Your task to perform on an android device: turn off notifications in google photos Image 0: 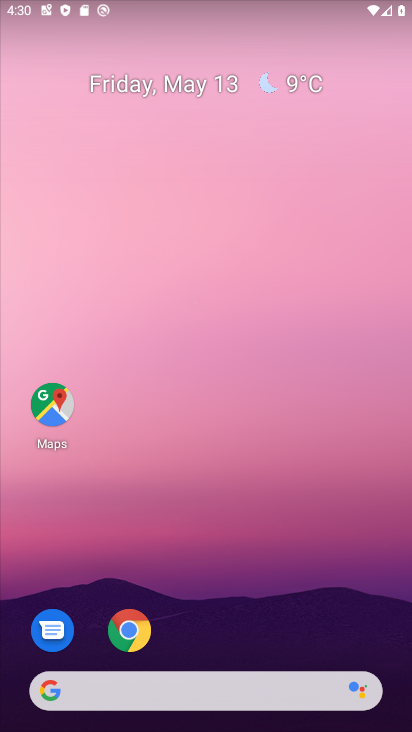
Step 0: drag from (228, 458) to (211, 34)
Your task to perform on an android device: turn off notifications in google photos Image 1: 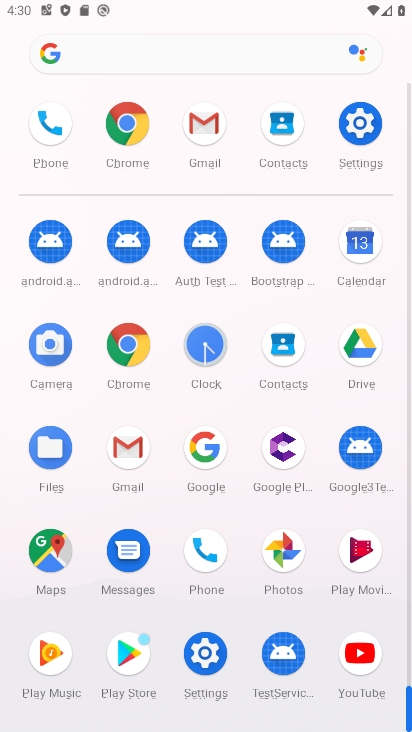
Step 1: drag from (8, 565) to (37, 248)
Your task to perform on an android device: turn off notifications in google photos Image 2: 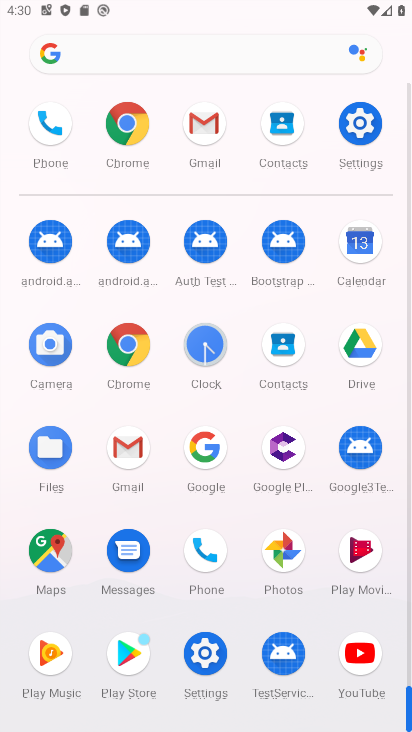
Step 2: click (201, 648)
Your task to perform on an android device: turn off notifications in google photos Image 3: 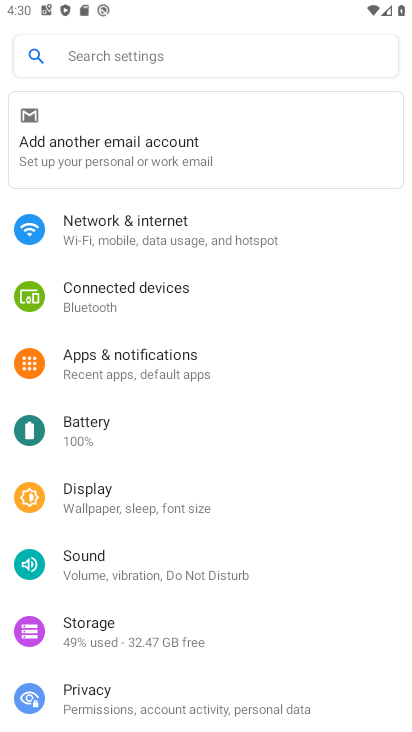
Step 3: drag from (311, 536) to (352, 167)
Your task to perform on an android device: turn off notifications in google photos Image 4: 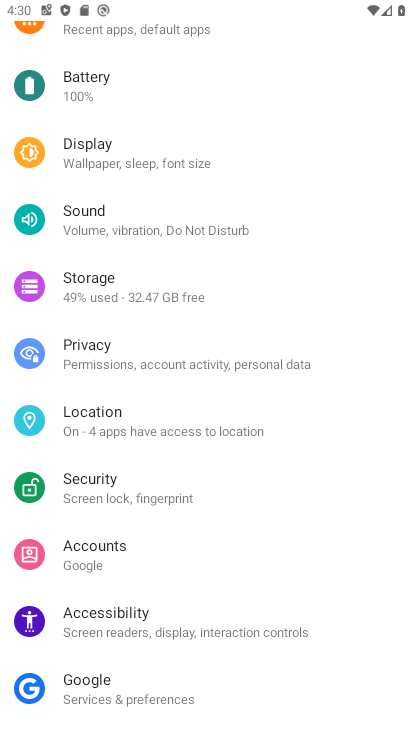
Step 4: drag from (328, 110) to (308, 456)
Your task to perform on an android device: turn off notifications in google photos Image 5: 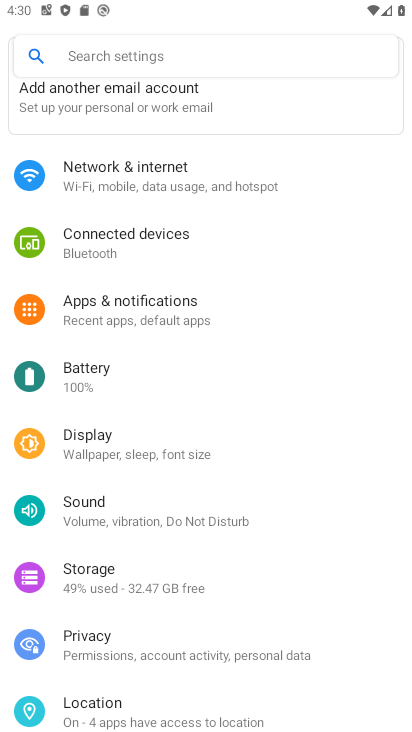
Step 5: press back button
Your task to perform on an android device: turn off notifications in google photos Image 6: 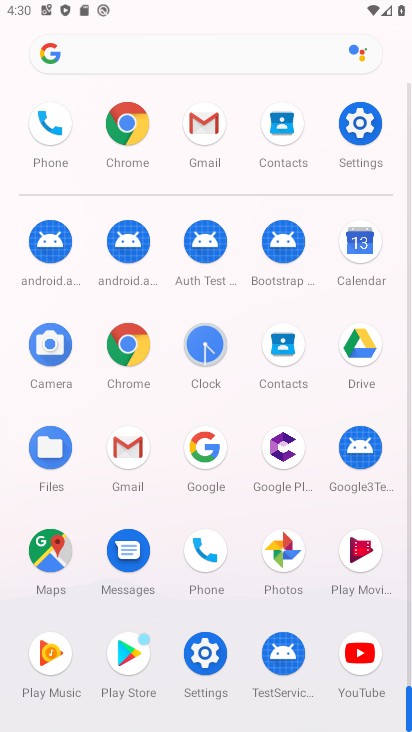
Step 6: click (281, 545)
Your task to perform on an android device: turn off notifications in google photos Image 7: 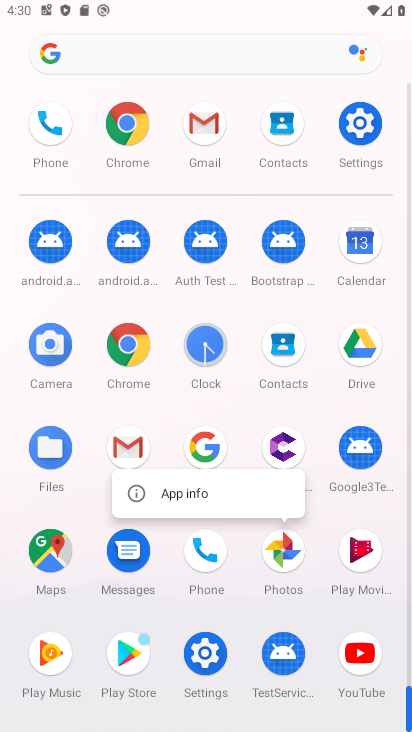
Step 7: click (281, 545)
Your task to perform on an android device: turn off notifications in google photos Image 8: 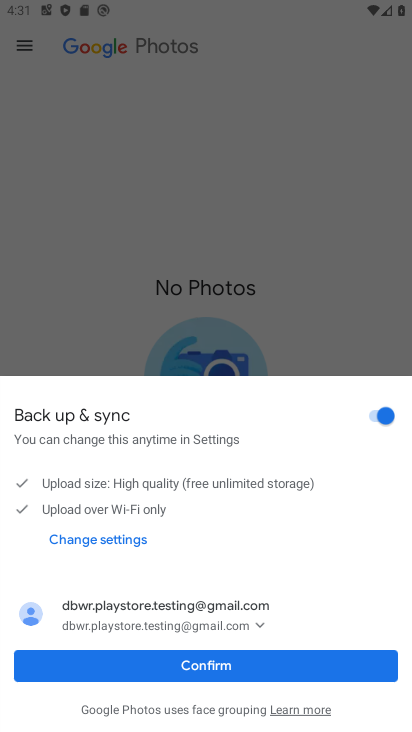
Step 8: press back button
Your task to perform on an android device: turn off notifications in google photos Image 9: 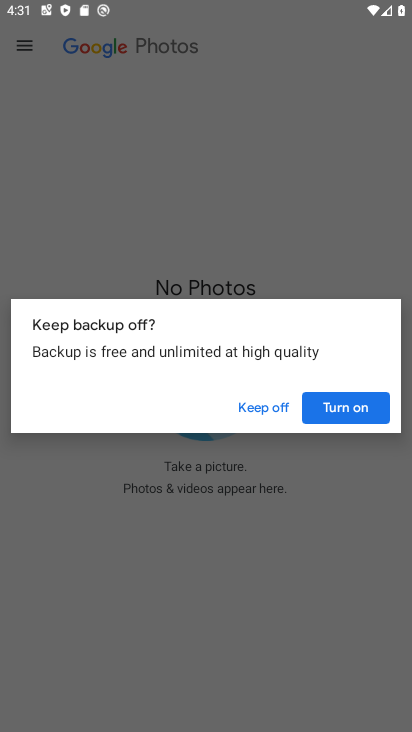
Step 9: press back button
Your task to perform on an android device: turn off notifications in google photos Image 10: 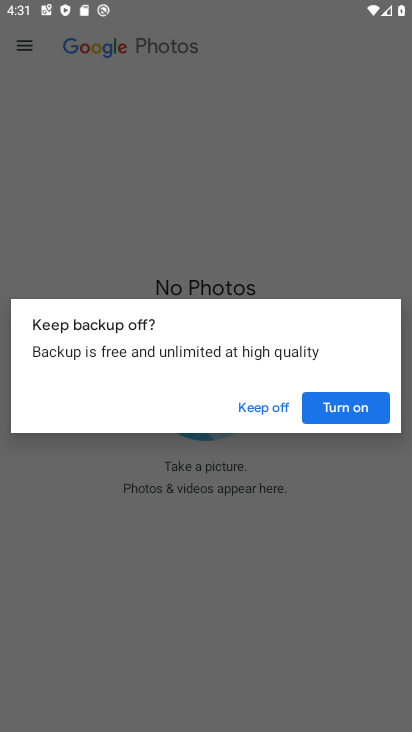
Step 10: click (320, 401)
Your task to perform on an android device: turn off notifications in google photos Image 11: 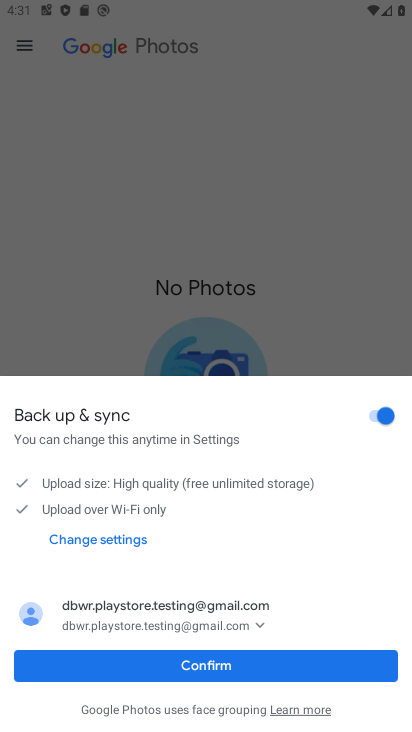
Step 11: click (178, 676)
Your task to perform on an android device: turn off notifications in google photos Image 12: 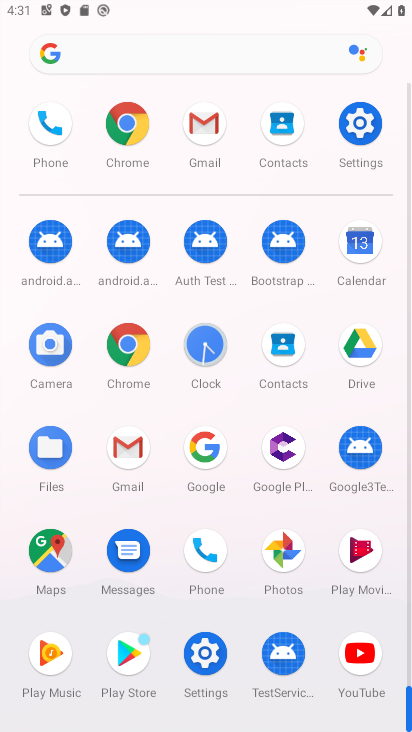
Step 12: click (276, 554)
Your task to perform on an android device: turn off notifications in google photos Image 13: 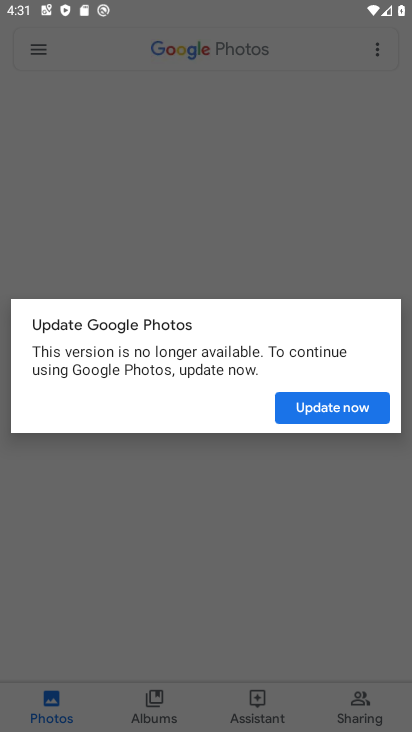
Step 13: click (328, 410)
Your task to perform on an android device: turn off notifications in google photos Image 14: 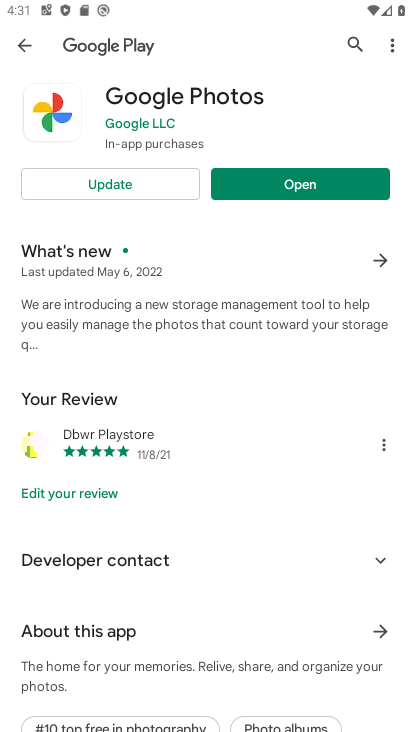
Step 14: click (135, 178)
Your task to perform on an android device: turn off notifications in google photos Image 15: 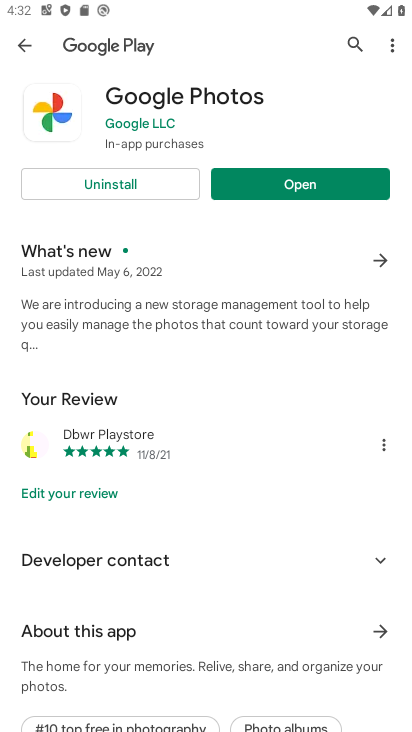
Step 15: click (293, 178)
Your task to perform on an android device: turn off notifications in google photos Image 16: 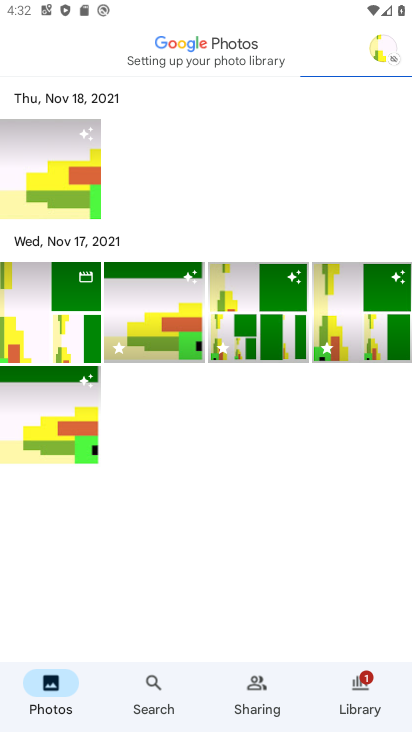
Step 16: click (388, 55)
Your task to perform on an android device: turn off notifications in google photos Image 17: 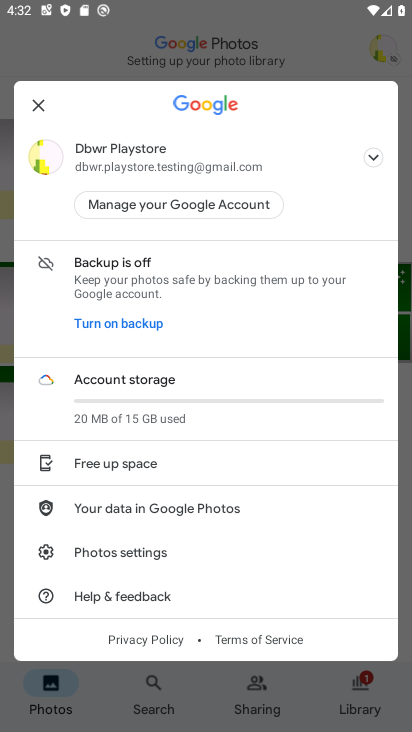
Step 17: click (130, 552)
Your task to perform on an android device: turn off notifications in google photos Image 18: 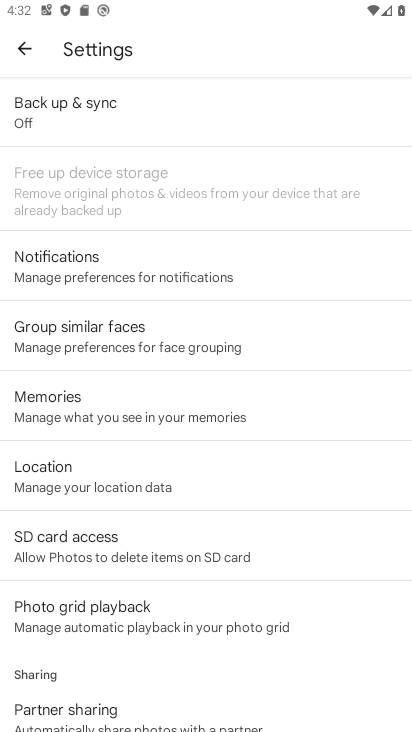
Step 18: click (169, 242)
Your task to perform on an android device: turn off notifications in google photos Image 19: 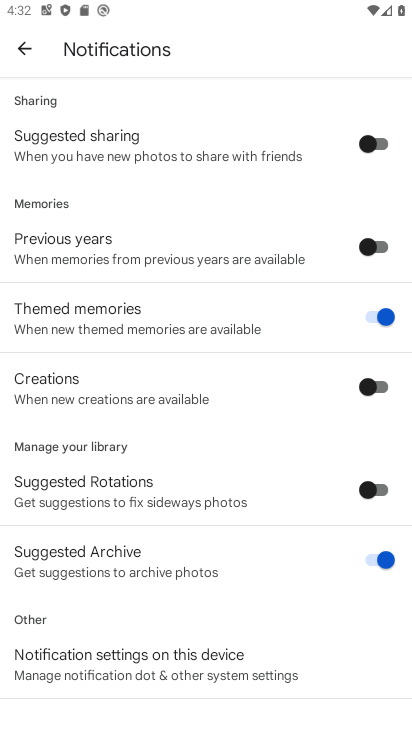
Step 19: click (158, 638)
Your task to perform on an android device: turn off notifications in google photos Image 20: 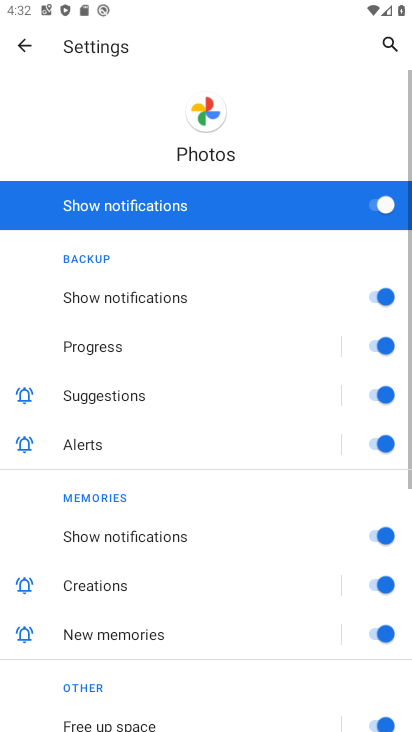
Step 20: click (385, 207)
Your task to perform on an android device: turn off notifications in google photos Image 21: 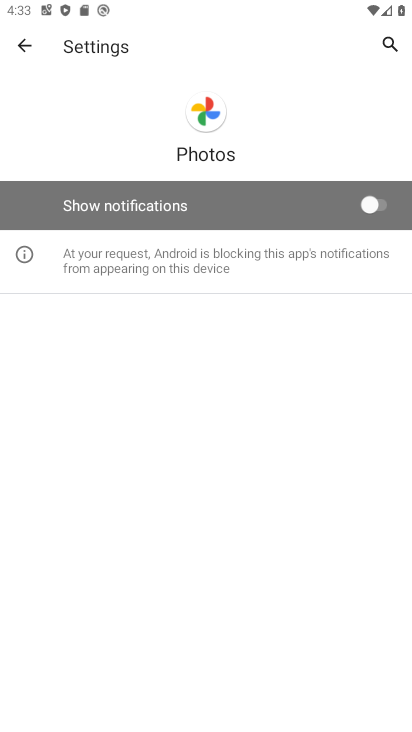
Step 21: task complete